Your task to perform on an android device: Check the news Image 0: 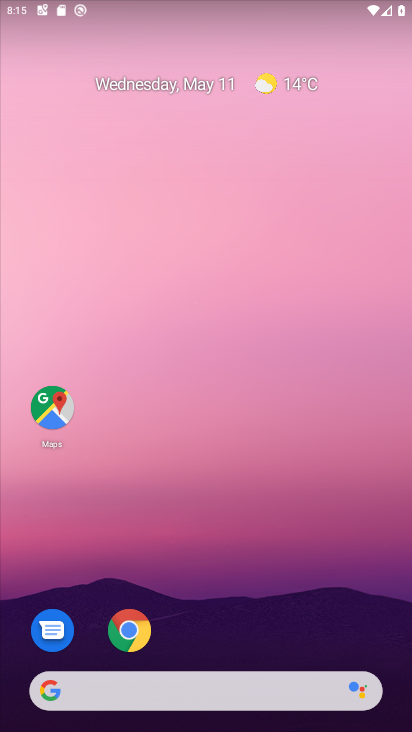
Step 0: click (146, 686)
Your task to perform on an android device: Check the news Image 1: 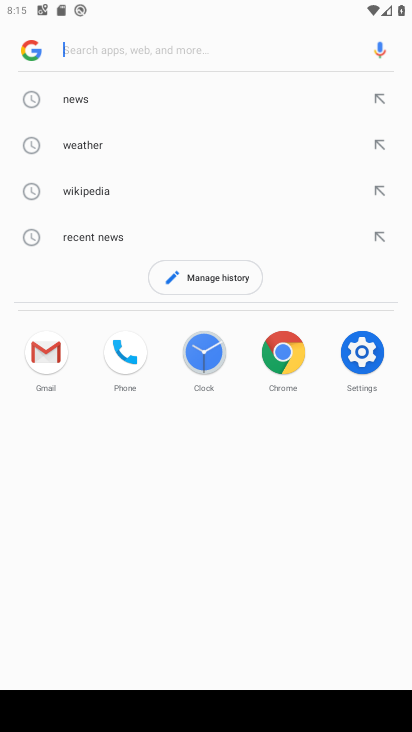
Step 1: click (125, 109)
Your task to perform on an android device: Check the news Image 2: 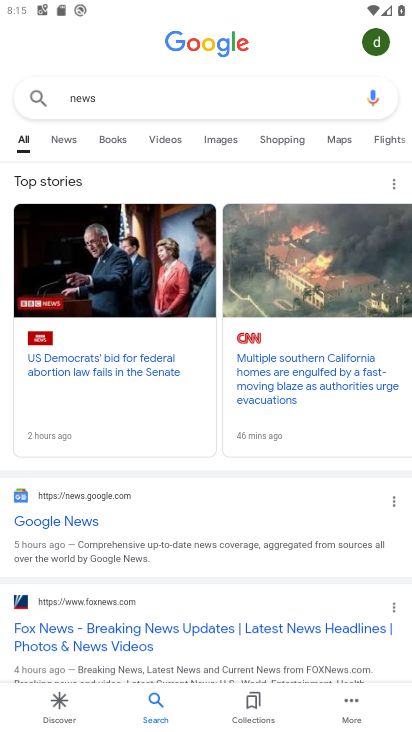
Step 2: task complete